Your task to perform on an android device: turn on bluetooth scan Image 0: 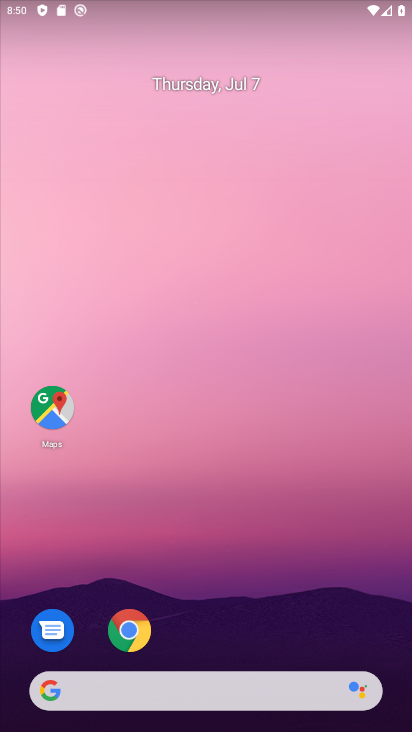
Step 0: drag from (214, 623) to (190, 281)
Your task to perform on an android device: turn on bluetooth scan Image 1: 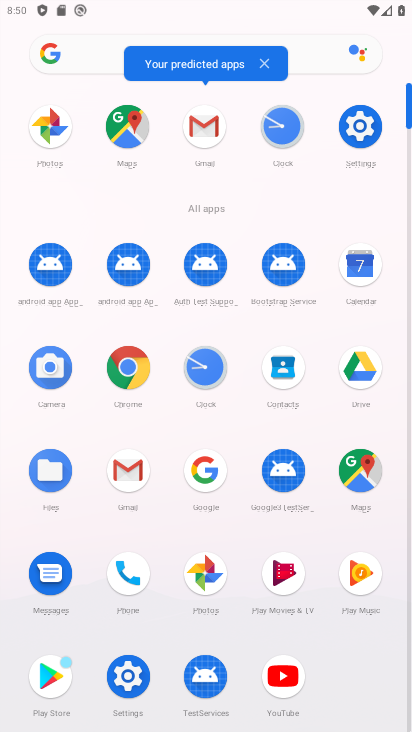
Step 1: click (348, 122)
Your task to perform on an android device: turn on bluetooth scan Image 2: 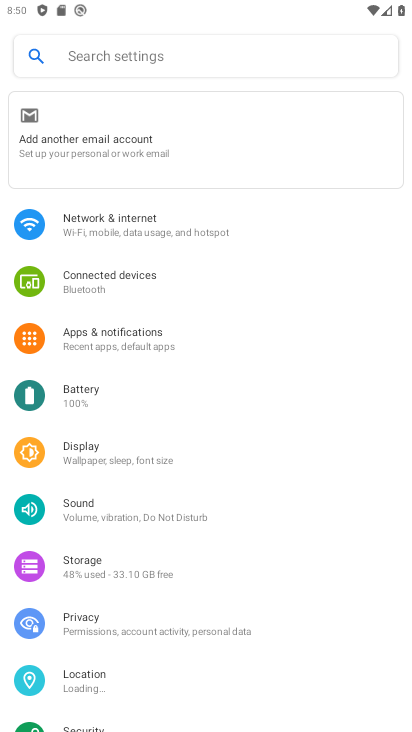
Step 2: click (107, 684)
Your task to perform on an android device: turn on bluetooth scan Image 3: 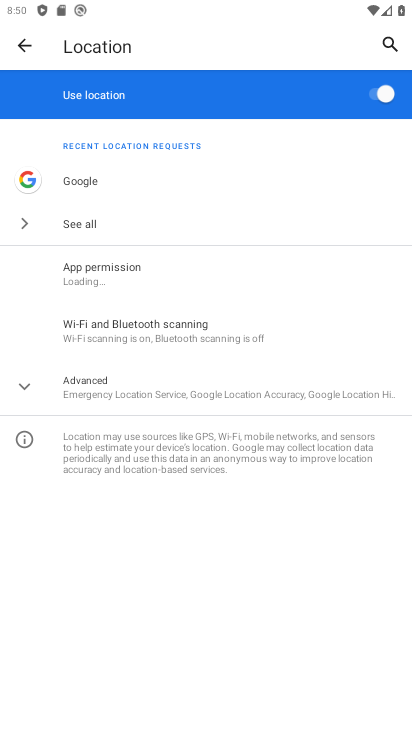
Step 3: click (125, 390)
Your task to perform on an android device: turn on bluetooth scan Image 4: 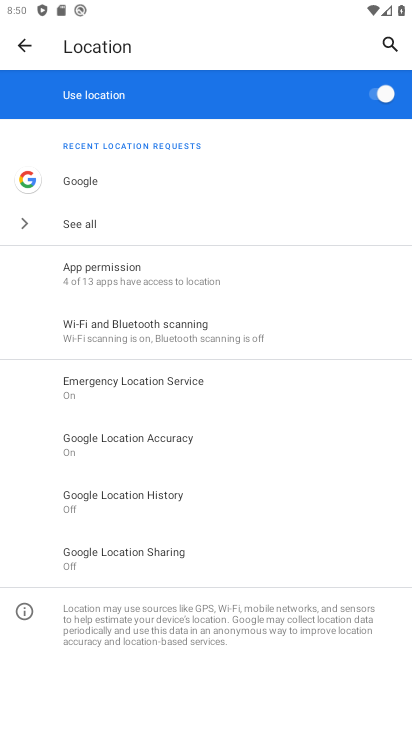
Step 4: click (117, 328)
Your task to perform on an android device: turn on bluetooth scan Image 5: 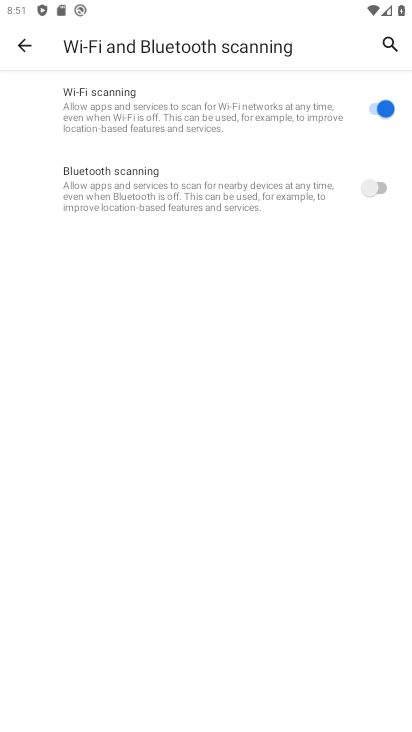
Step 5: click (381, 185)
Your task to perform on an android device: turn on bluetooth scan Image 6: 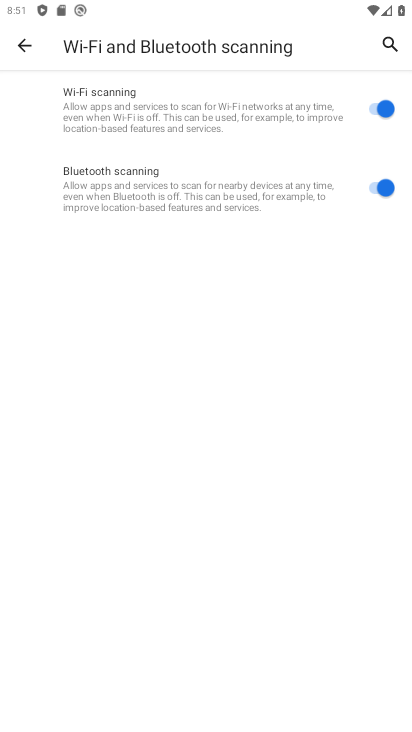
Step 6: task complete